Your task to perform on an android device: open chrome and create a bookmark for the current page Image 0: 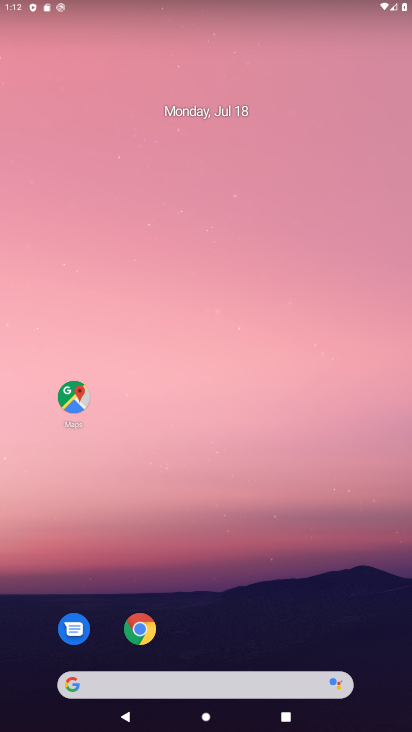
Step 0: press home button
Your task to perform on an android device: open chrome and create a bookmark for the current page Image 1: 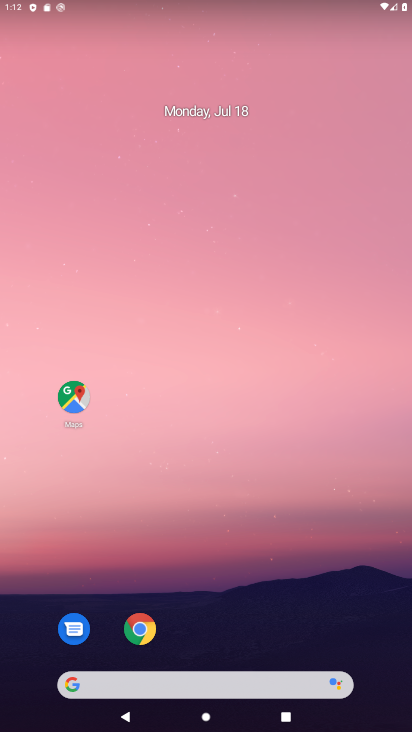
Step 1: click (140, 624)
Your task to perform on an android device: open chrome and create a bookmark for the current page Image 2: 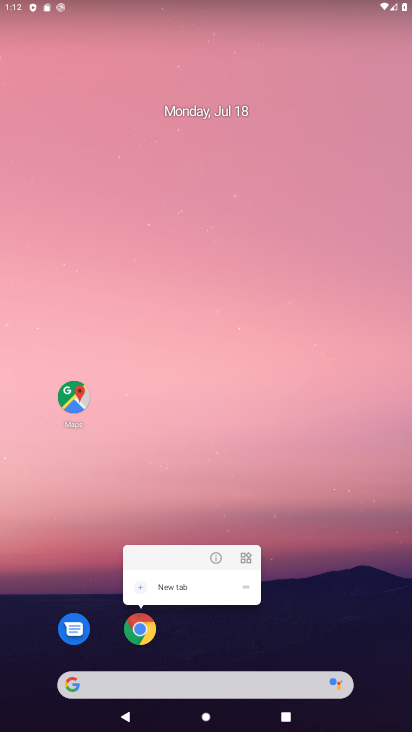
Step 2: click (139, 622)
Your task to perform on an android device: open chrome and create a bookmark for the current page Image 3: 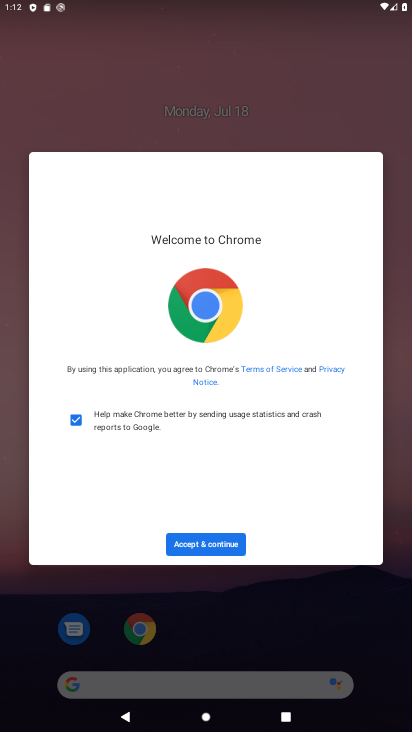
Step 3: click (203, 540)
Your task to perform on an android device: open chrome and create a bookmark for the current page Image 4: 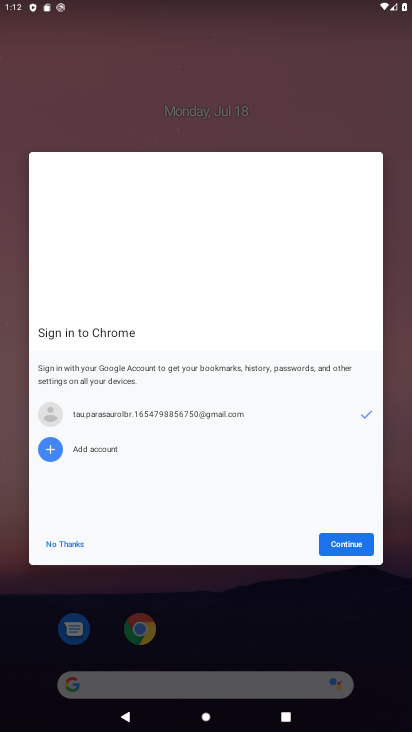
Step 4: click (347, 542)
Your task to perform on an android device: open chrome and create a bookmark for the current page Image 5: 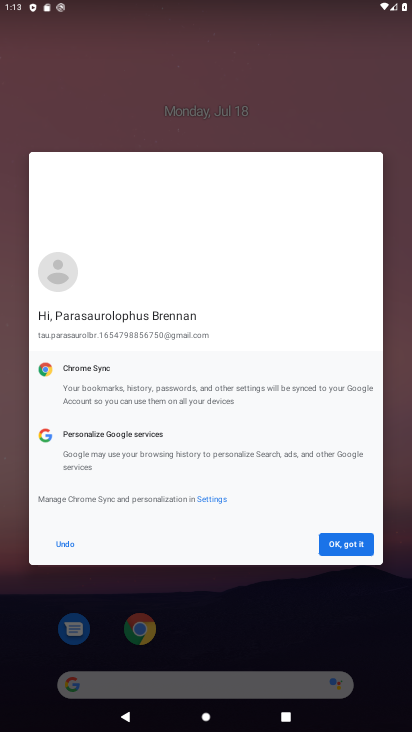
Step 5: click (345, 542)
Your task to perform on an android device: open chrome and create a bookmark for the current page Image 6: 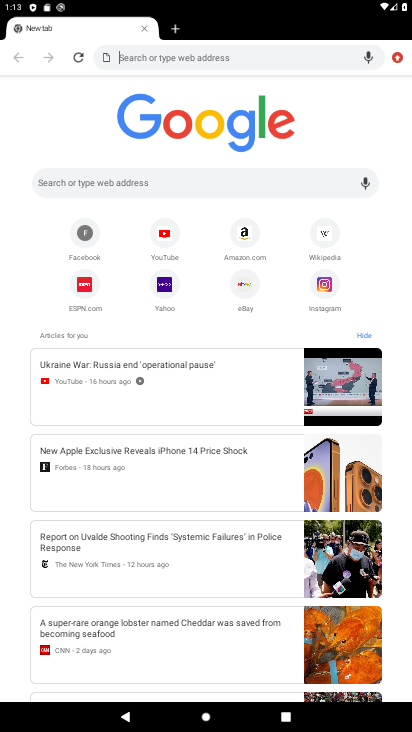
Step 6: click (396, 56)
Your task to perform on an android device: open chrome and create a bookmark for the current page Image 7: 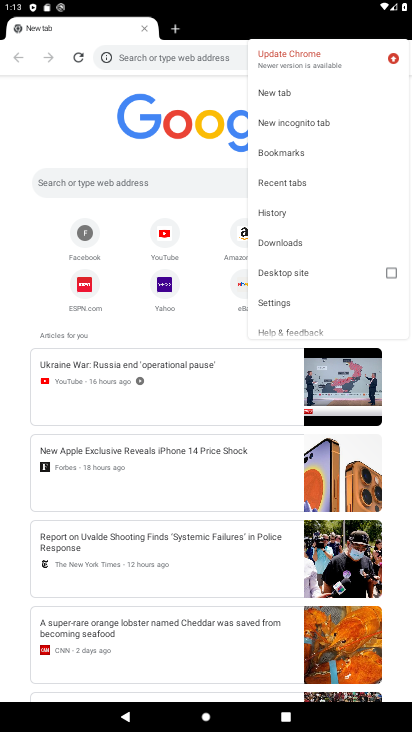
Step 7: click (66, 114)
Your task to perform on an android device: open chrome and create a bookmark for the current page Image 8: 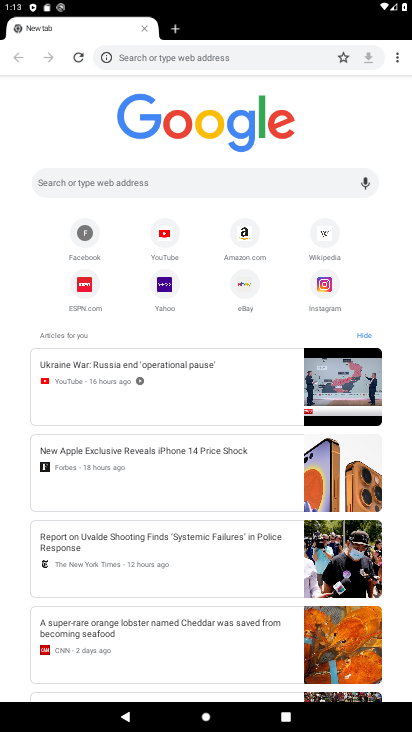
Step 8: click (343, 55)
Your task to perform on an android device: open chrome and create a bookmark for the current page Image 9: 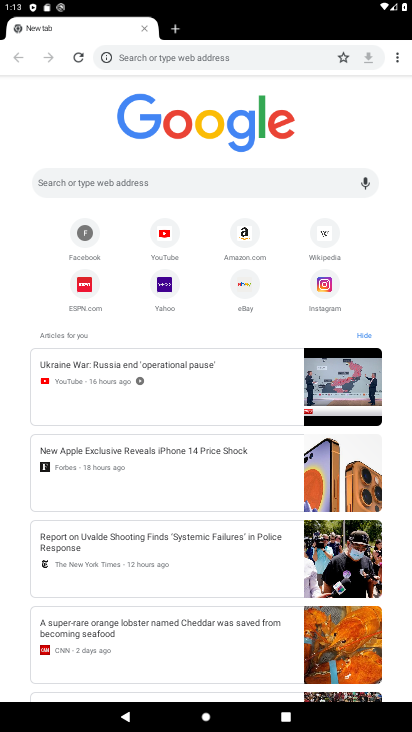
Step 9: click (344, 57)
Your task to perform on an android device: open chrome and create a bookmark for the current page Image 10: 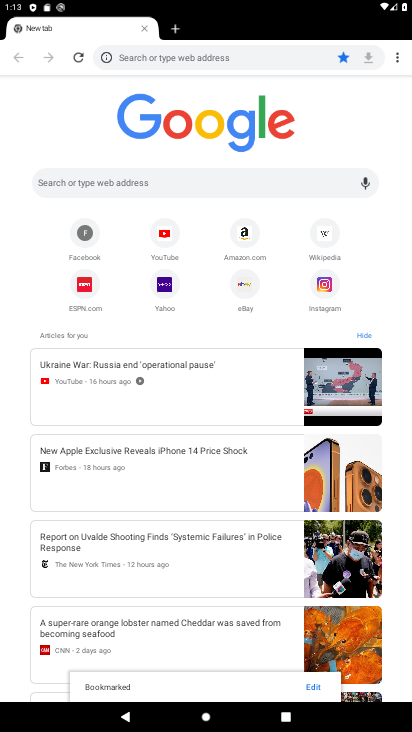
Step 10: task complete